Your task to perform on an android device: Open calendar and show me the fourth week of next month Image 0: 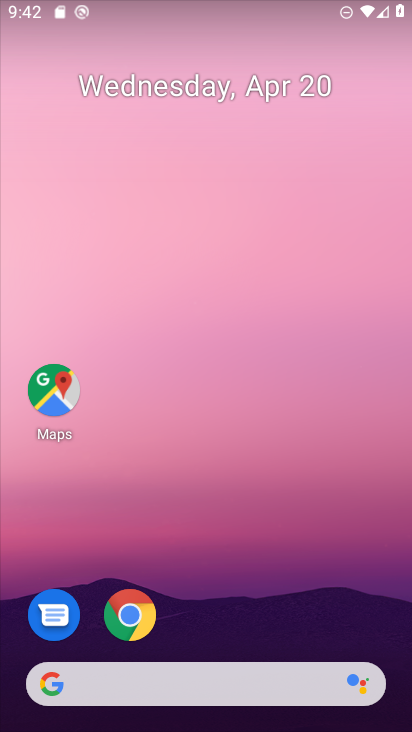
Step 0: drag from (281, 495) to (263, 148)
Your task to perform on an android device: Open calendar and show me the fourth week of next month Image 1: 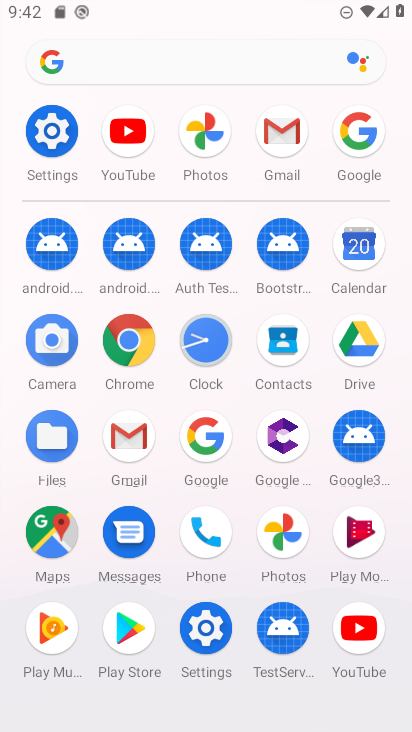
Step 1: click (362, 246)
Your task to perform on an android device: Open calendar and show me the fourth week of next month Image 2: 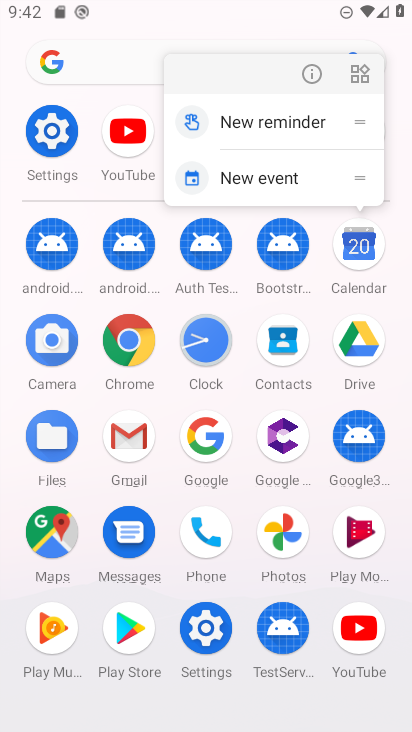
Step 2: click (362, 246)
Your task to perform on an android device: Open calendar and show me the fourth week of next month Image 3: 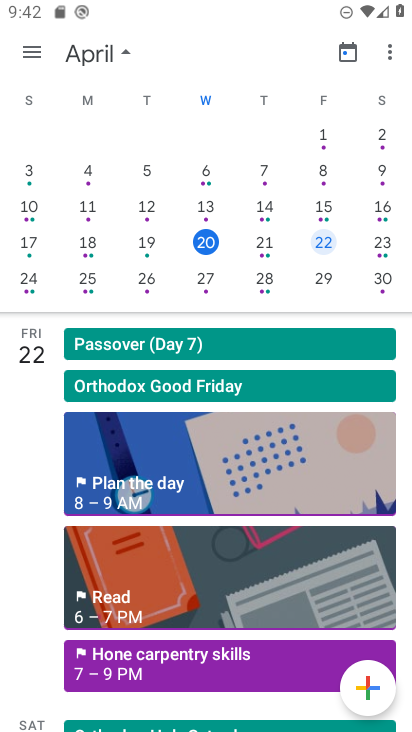
Step 3: click (351, 60)
Your task to perform on an android device: Open calendar and show me the fourth week of next month Image 4: 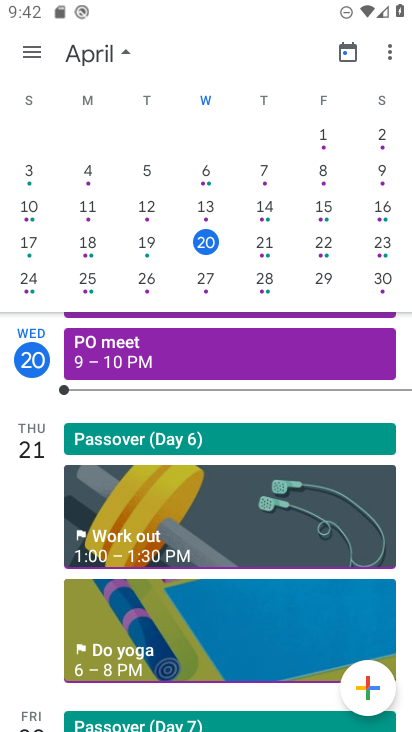
Step 4: drag from (355, 218) to (1, 181)
Your task to perform on an android device: Open calendar and show me the fourth week of next month Image 5: 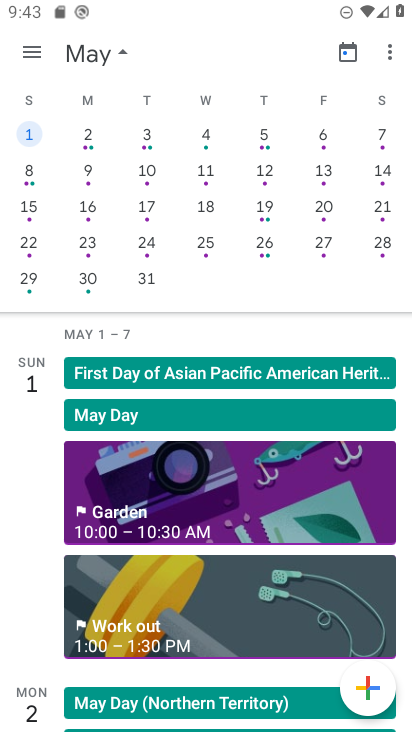
Step 5: click (85, 247)
Your task to perform on an android device: Open calendar and show me the fourth week of next month Image 6: 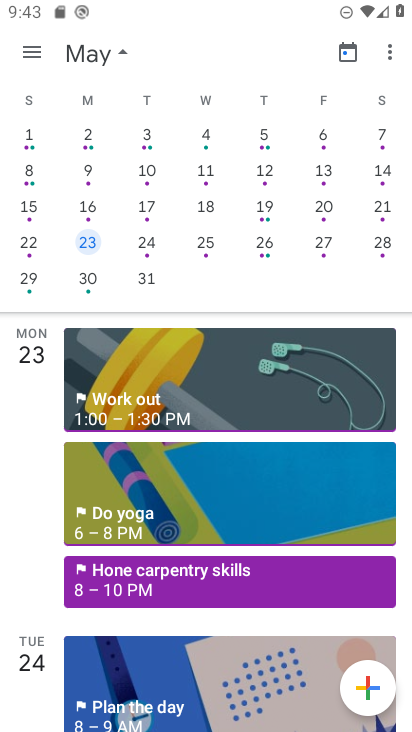
Step 6: click (37, 50)
Your task to perform on an android device: Open calendar and show me the fourth week of next month Image 7: 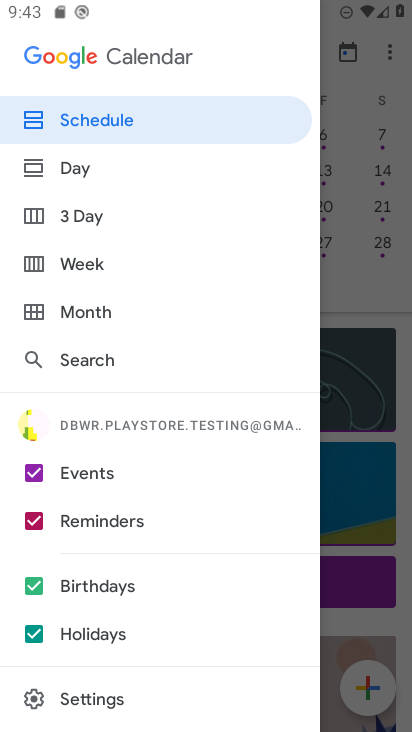
Step 7: click (96, 273)
Your task to perform on an android device: Open calendar and show me the fourth week of next month Image 8: 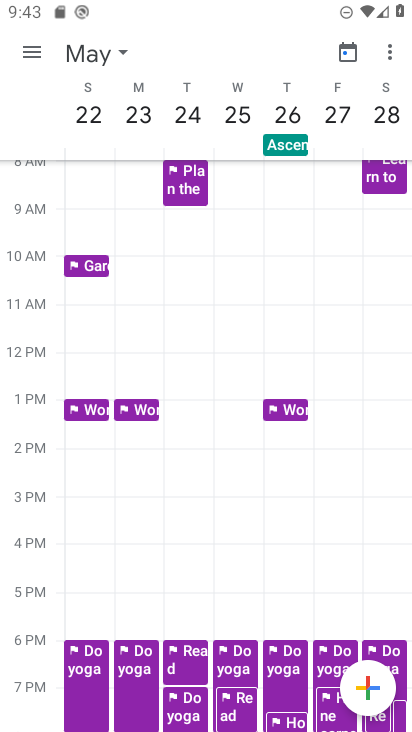
Step 8: task complete